Your task to perform on an android device: delete a single message in the gmail app Image 0: 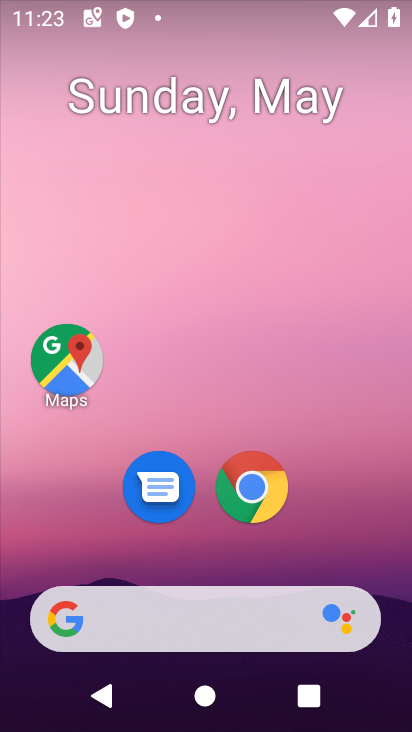
Step 0: drag from (350, 539) to (363, 200)
Your task to perform on an android device: delete a single message in the gmail app Image 1: 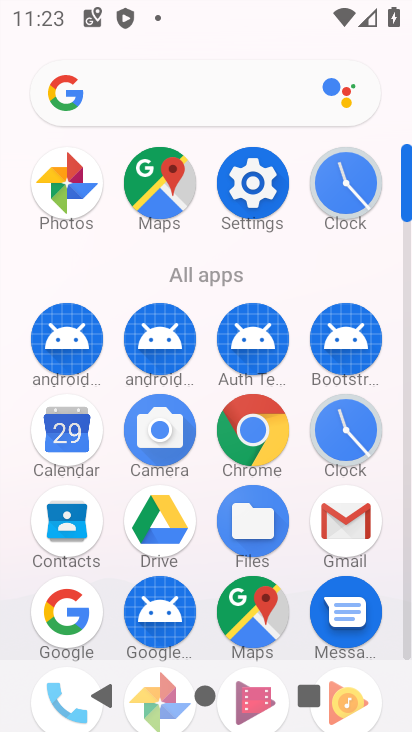
Step 1: click (351, 526)
Your task to perform on an android device: delete a single message in the gmail app Image 2: 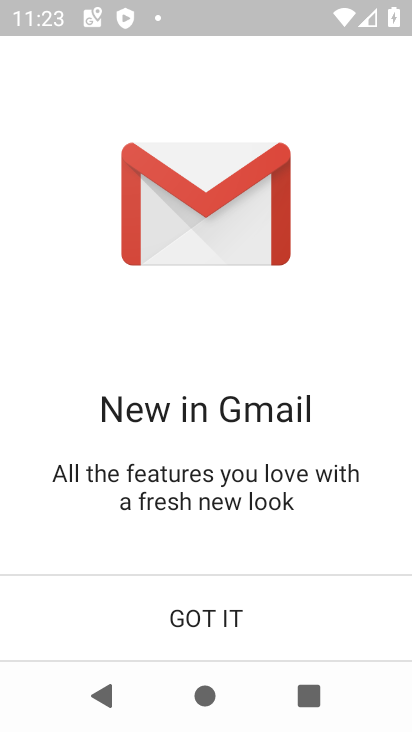
Step 2: click (251, 610)
Your task to perform on an android device: delete a single message in the gmail app Image 3: 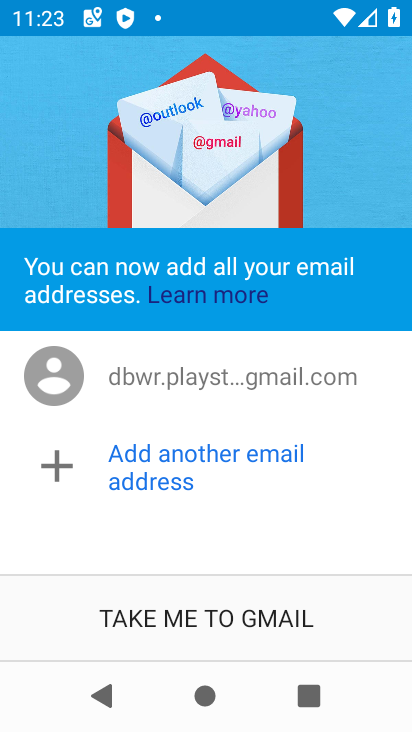
Step 3: click (240, 622)
Your task to perform on an android device: delete a single message in the gmail app Image 4: 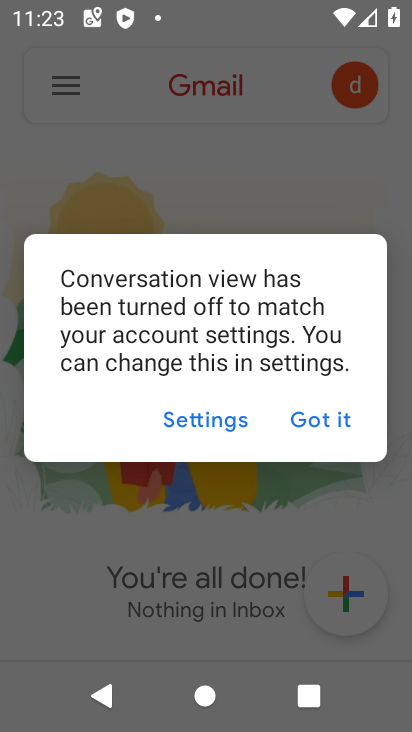
Step 4: click (328, 429)
Your task to perform on an android device: delete a single message in the gmail app Image 5: 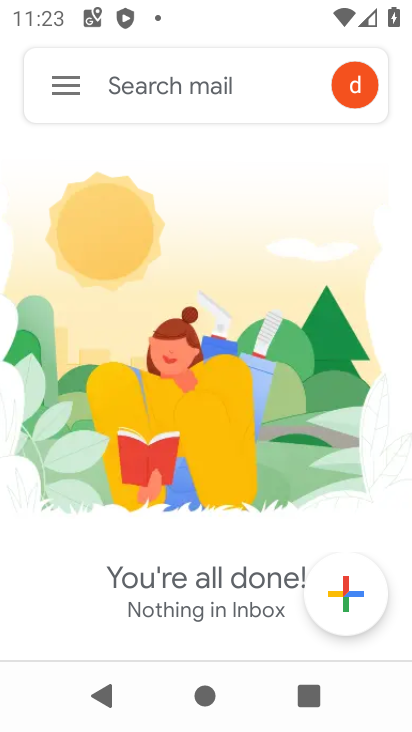
Step 5: task complete